Your task to perform on an android device: Go to wifi settings Image 0: 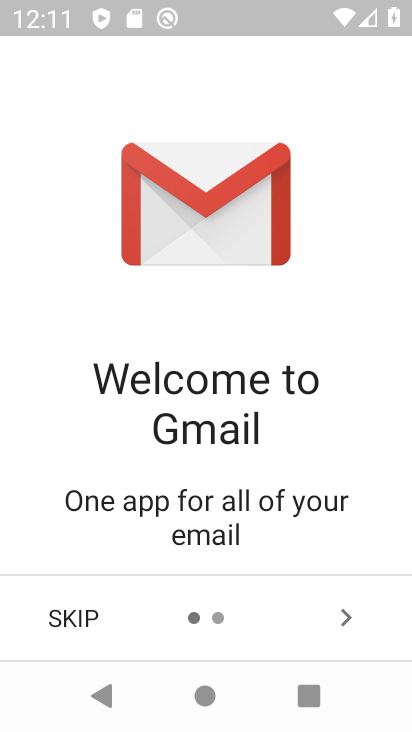
Step 0: press home button
Your task to perform on an android device: Go to wifi settings Image 1: 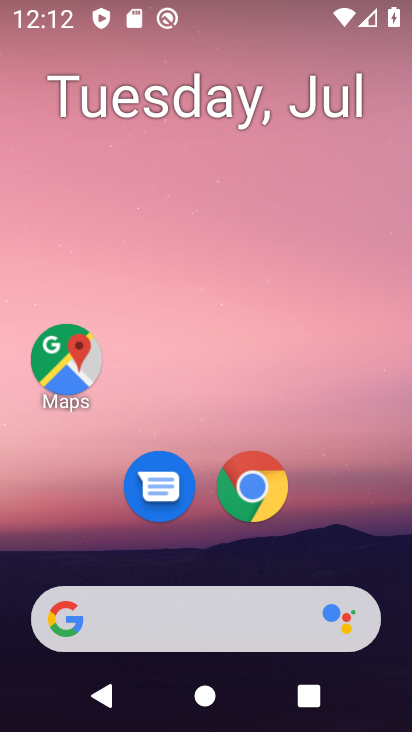
Step 1: drag from (367, 496) to (342, 50)
Your task to perform on an android device: Go to wifi settings Image 2: 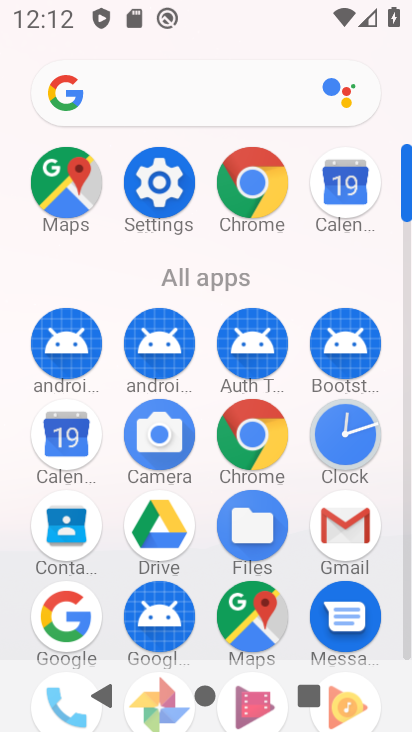
Step 2: click (165, 206)
Your task to perform on an android device: Go to wifi settings Image 3: 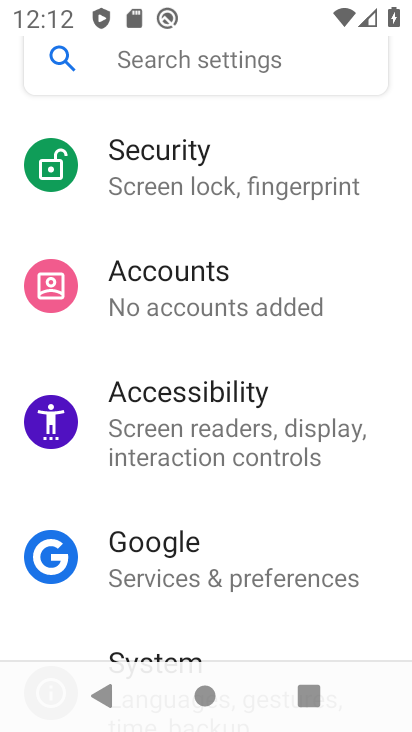
Step 3: drag from (375, 273) to (373, 438)
Your task to perform on an android device: Go to wifi settings Image 4: 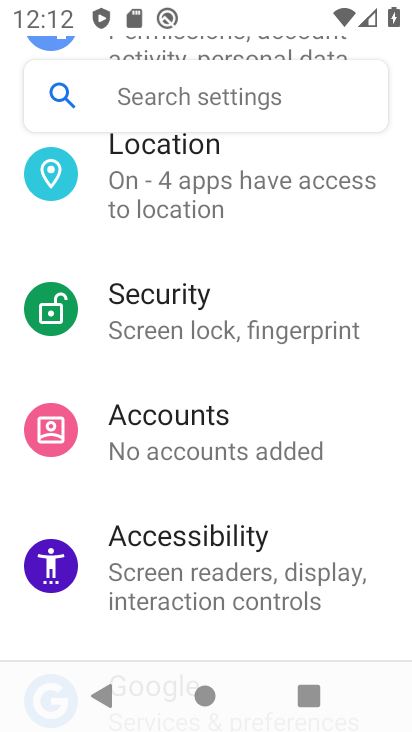
Step 4: drag from (368, 289) to (372, 443)
Your task to perform on an android device: Go to wifi settings Image 5: 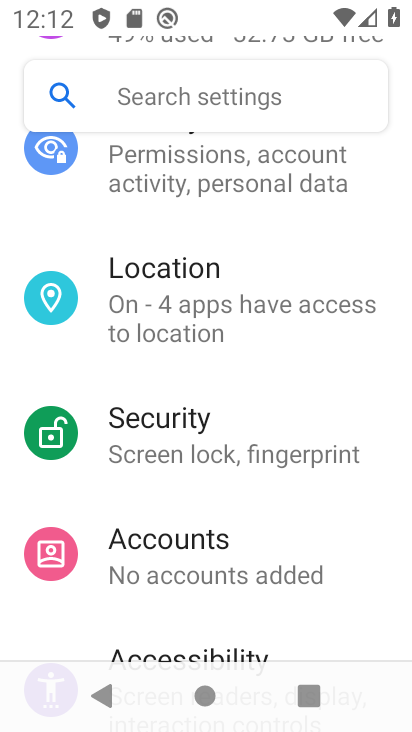
Step 5: drag from (360, 348) to (367, 488)
Your task to perform on an android device: Go to wifi settings Image 6: 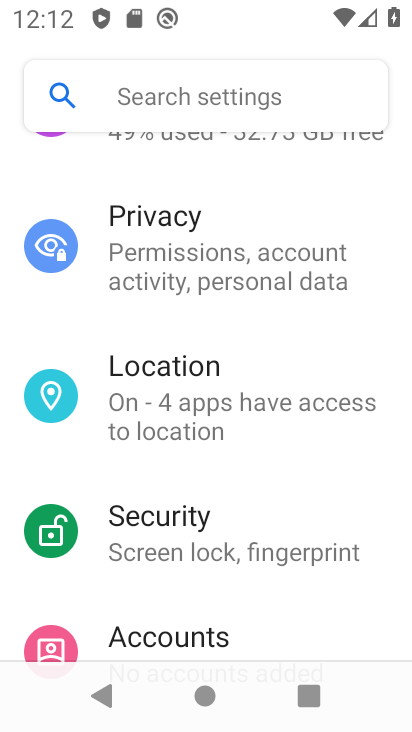
Step 6: drag from (363, 335) to (370, 453)
Your task to perform on an android device: Go to wifi settings Image 7: 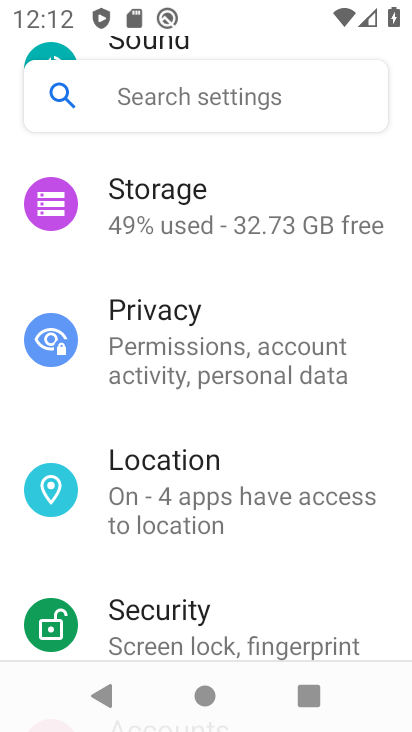
Step 7: drag from (374, 318) to (375, 447)
Your task to perform on an android device: Go to wifi settings Image 8: 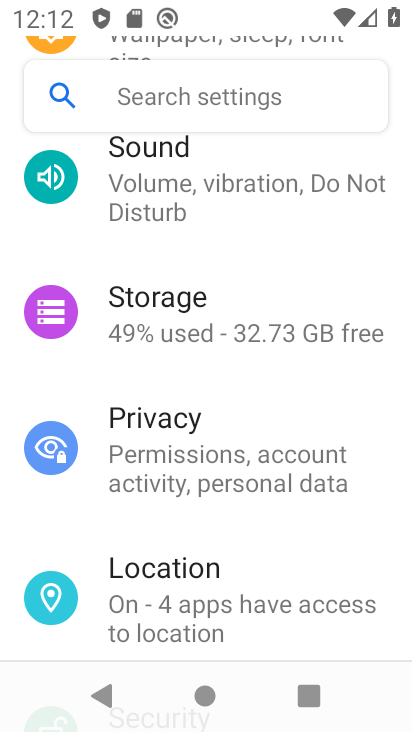
Step 8: drag from (388, 269) to (382, 399)
Your task to perform on an android device: Go to wifi settings Image 9: 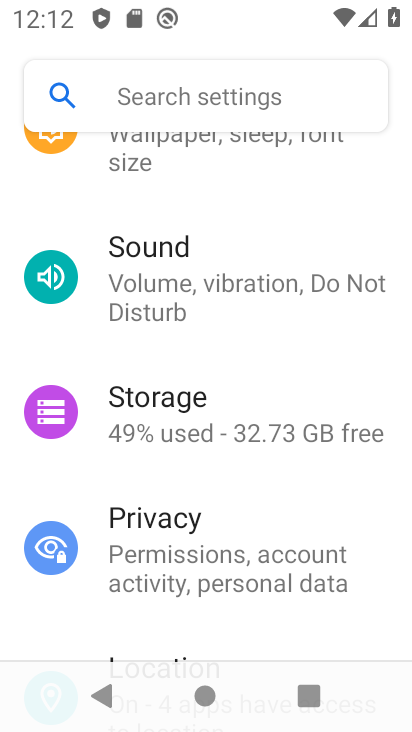
Step 9: drag from (375, 237) to (368, 366)
Your task to perform on an android device: Go to wifi settings Image 10: 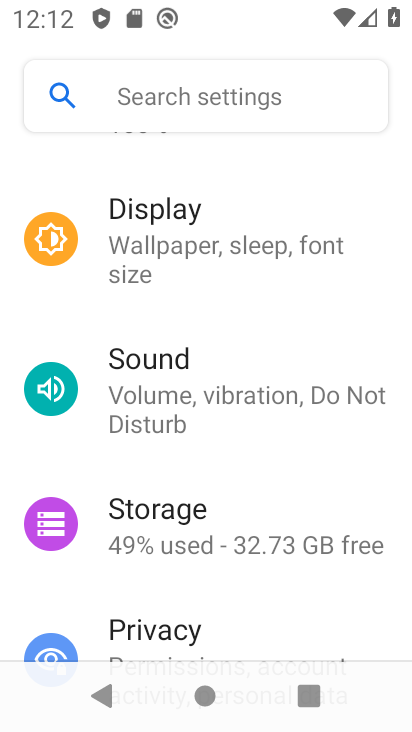
Step 10: drag from (375, 258) to (368, 349)
Your task to perform on an android device: Go to wifi settings Image 11: 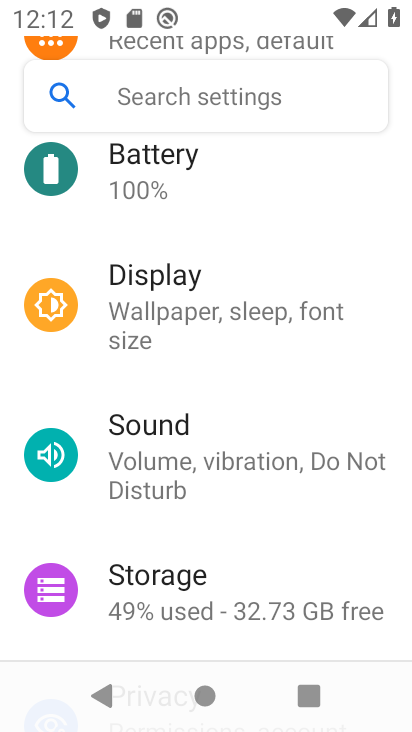
Step 11: drag from (366, 287) to (368, 403)
Your task to perform on an android device: Go to wifi settings Image 12: 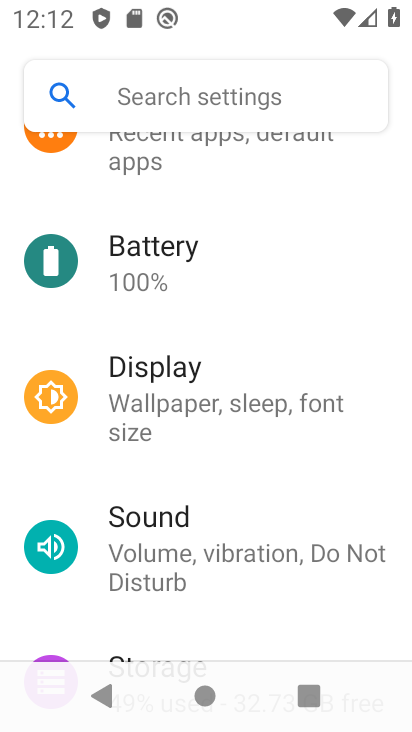
Step 12: drag from (363, 266) to (362, 394)
Your task to perform on an android device: Go to wifi settings Image 13: 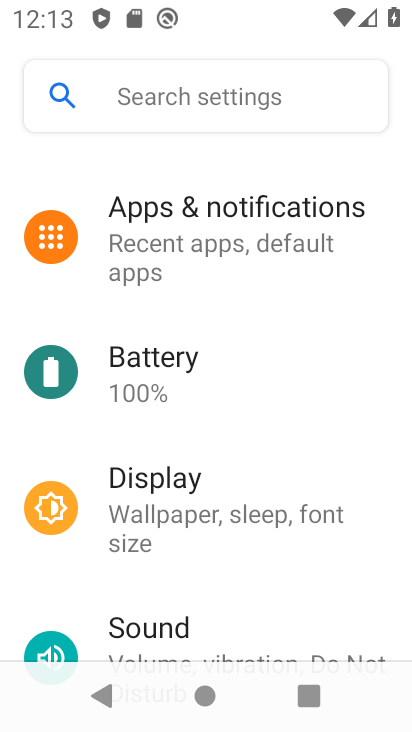
Step 13: drag from (368, 260) to (368, 396)
Your task to perform on an android device: Go to wifi settings Image 14: 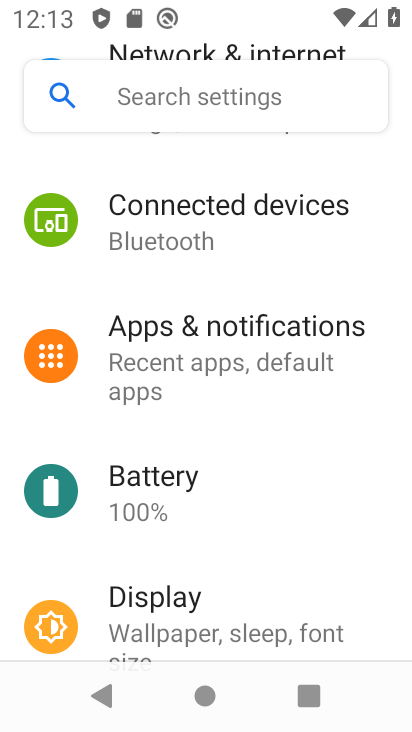
Step 14: drag from (377, 195) to (369, 363)
Your task to perform on an android device: Go to wifi settings Image 15: 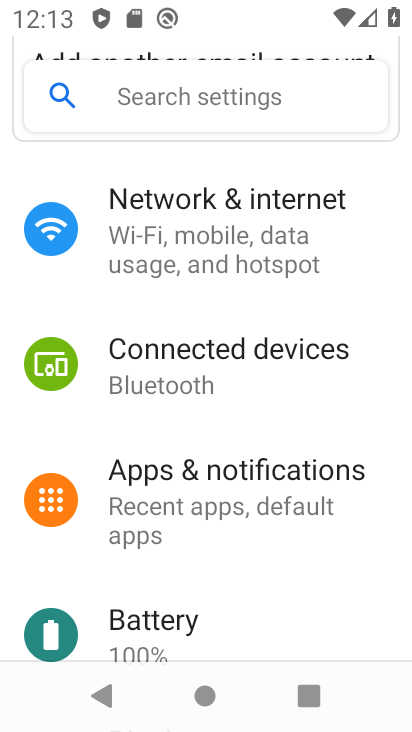
Step 15: drag from (377, 182) to (363, 364)
Your task to perform on an android device: Go to wifi settings Image 16: 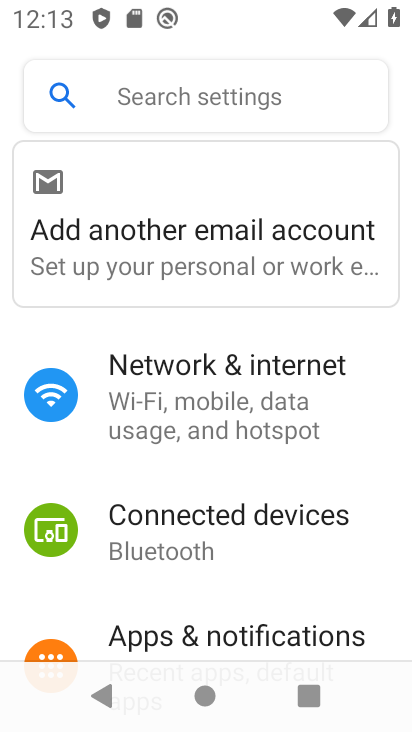
Step 16: click (266, 387)
Your task to perform on an android device: Go to wifi settings Image 17: 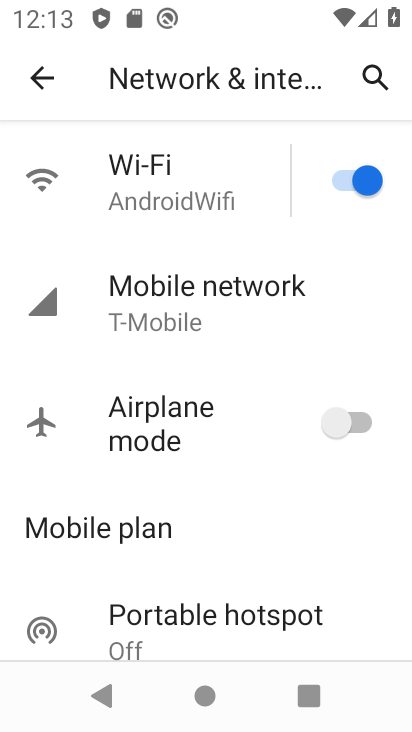
Step 17: click (184, 189)
Your task to perform on an android device: Go to wifi settings Image 18: 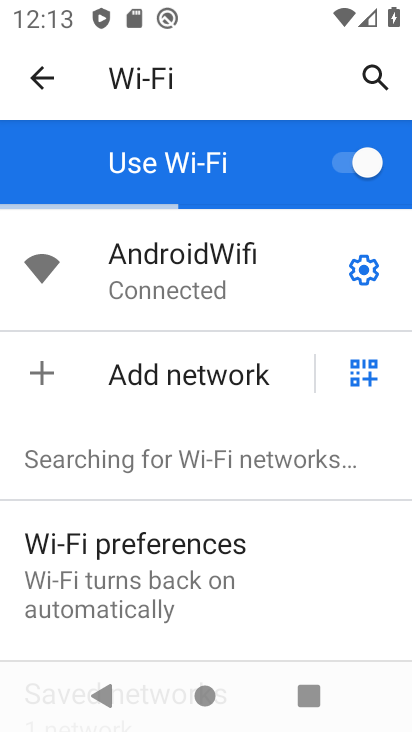
Step 18: task complete